Your task to perform on an android device: Turn off the flashlight Image 0: 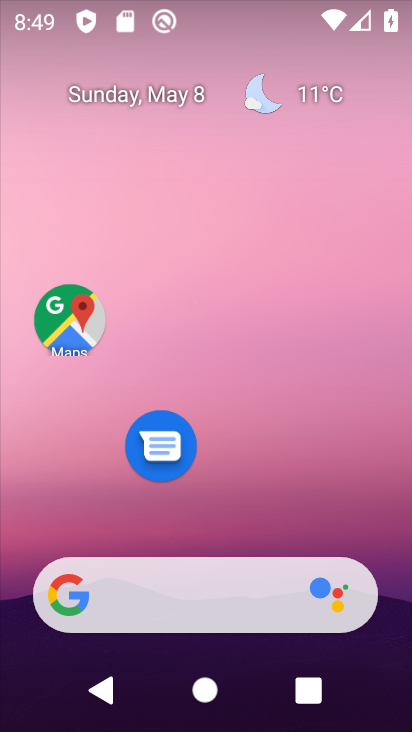
Step 0: drag from (304, 155) to (306, 8)
Your task to perform on an android device: Turn off the flashlight Image 1: 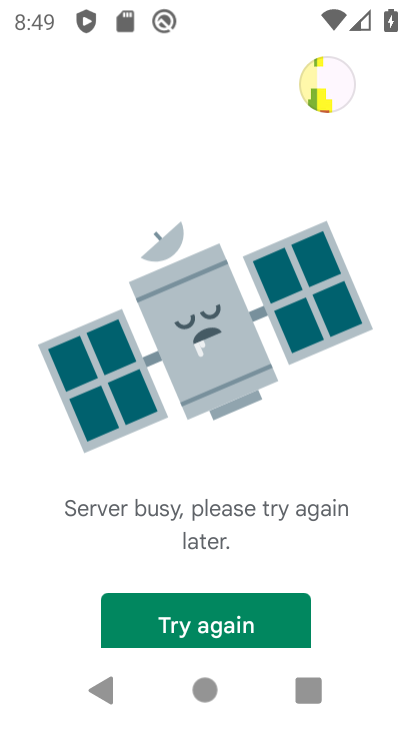
Step 1: task complete